Your task to perform on an android device: change the clock display to show seconds Image 0: 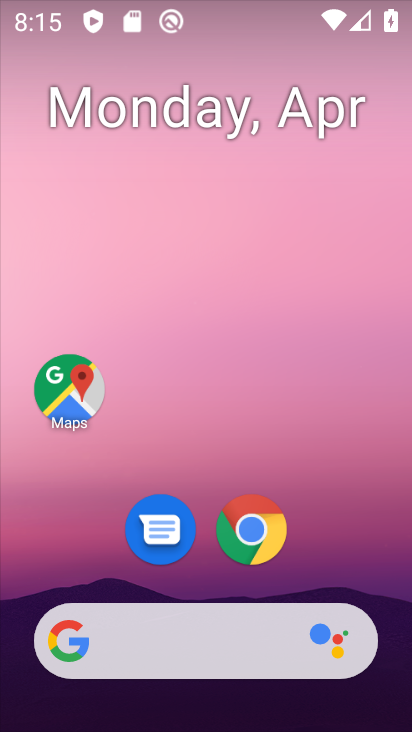
Step 0: drag from (352, 552) to (340, 155)
Your task to perform on an android device: change the clock display to show seconds Image 1: 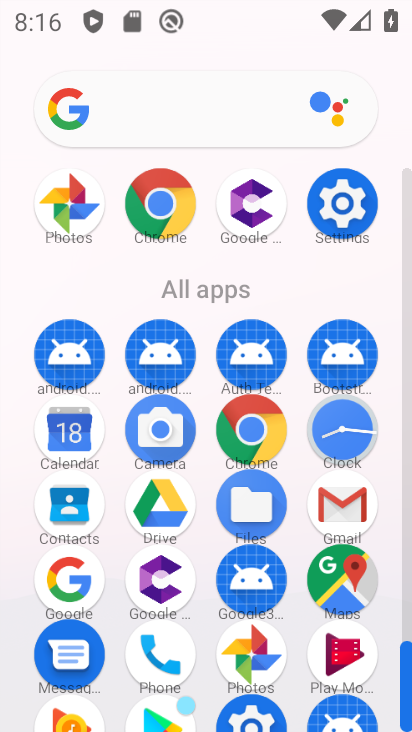
Step 1: click (362, 423)
Your task to perform on an android device: change the clock display to show seconds Image 2: 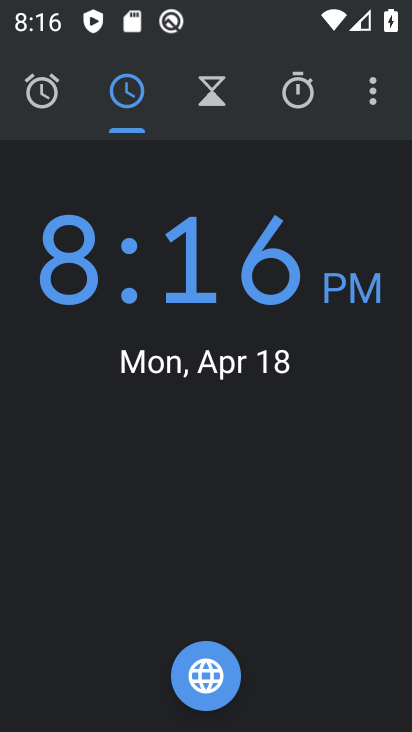
Step 2: click (380, 87)
Your task to perform on an android device: change the clock display to show seconds Image 3: 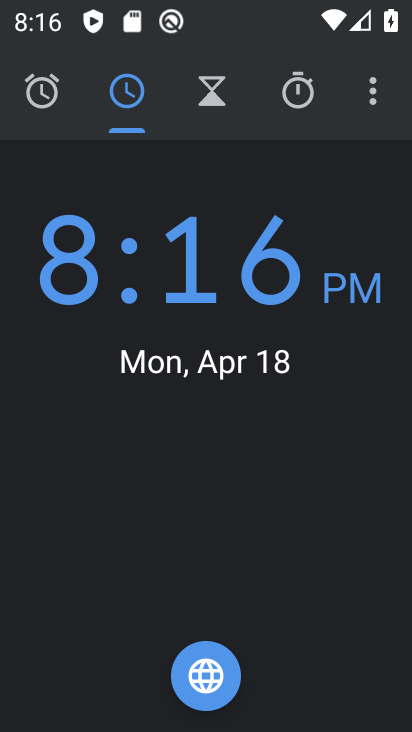
Step 3: click (371, 93)
Your task to perform on an android device: change the clock display to show seconds Image 4: 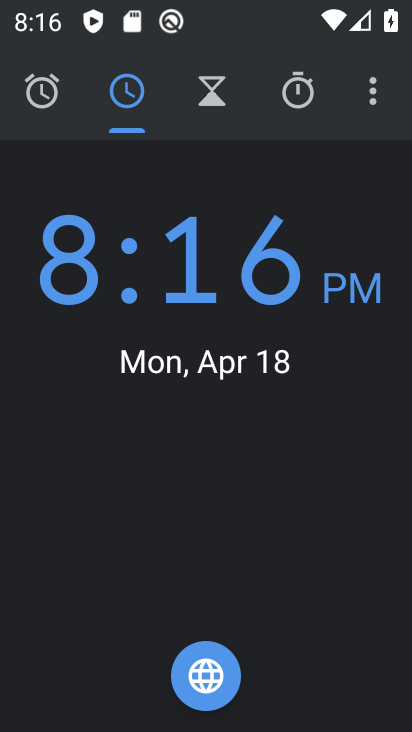
Step 4: click (374, 97)
Your task to perform on an android device: change the clock display to show seconds Image 5: 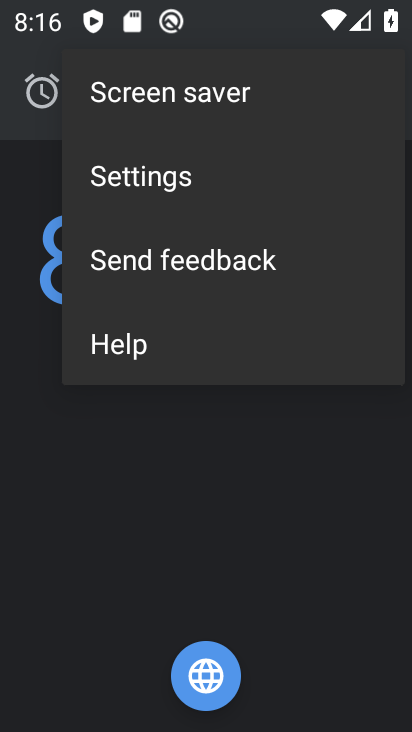
Step 5: click (176, 183)
Your task to perform on an android device: change the clock display to show seconds Image 6: 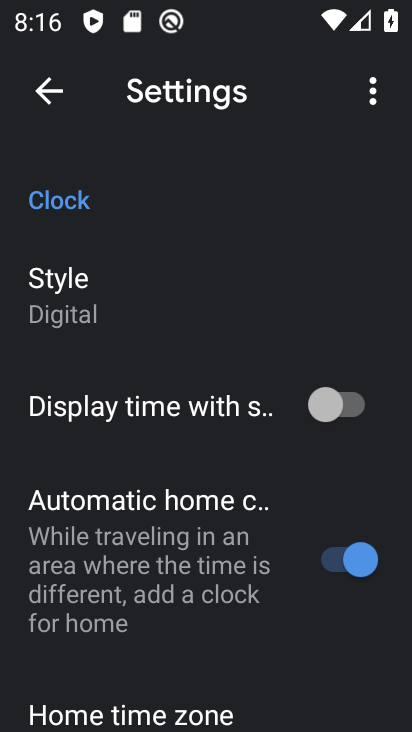
Step 6: click (346, 403)
Your task to perform on an android device: change the clock display to show seconds Image 7: 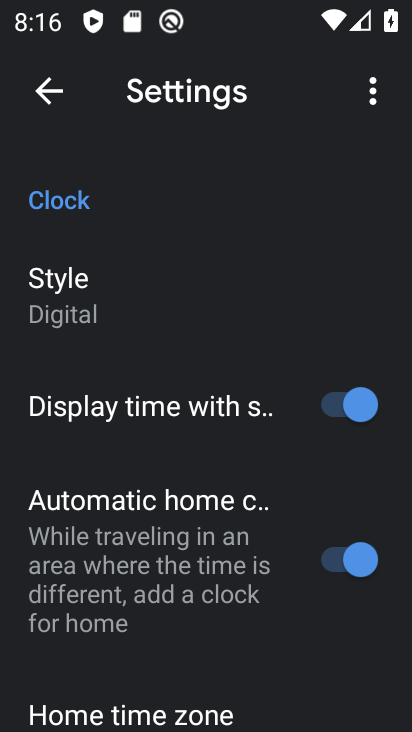
Step 7: task complete